Your task to perform on an android device: check data usage Image 0: 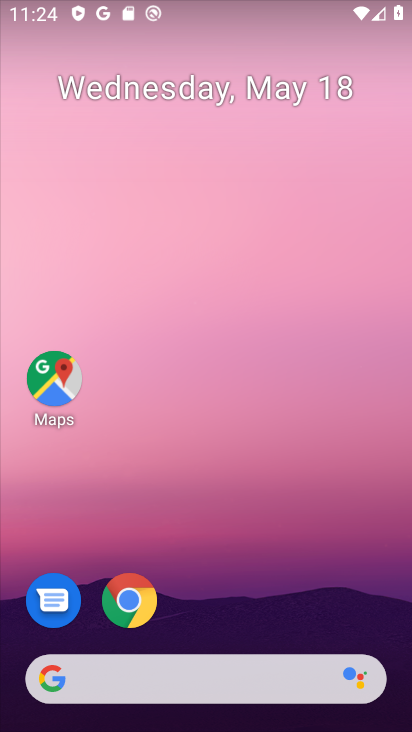
Step 0: drag from (189, 615) to (288, 30)
Your task to perform on an android device: check data usage Image 1: 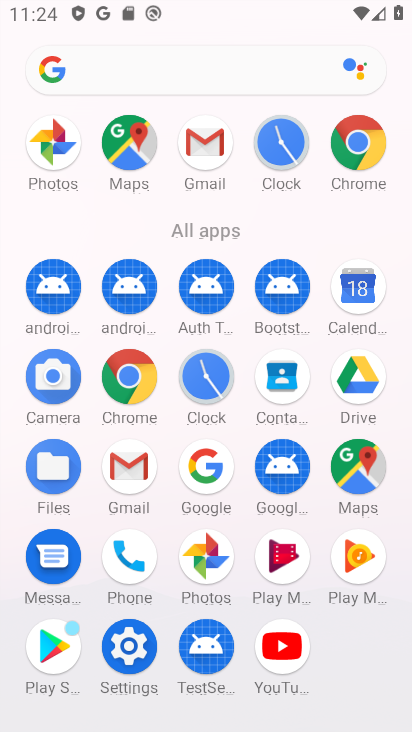
Step 1: click (142, 655)
Your task to perform on an android device: check data usage Image 2: 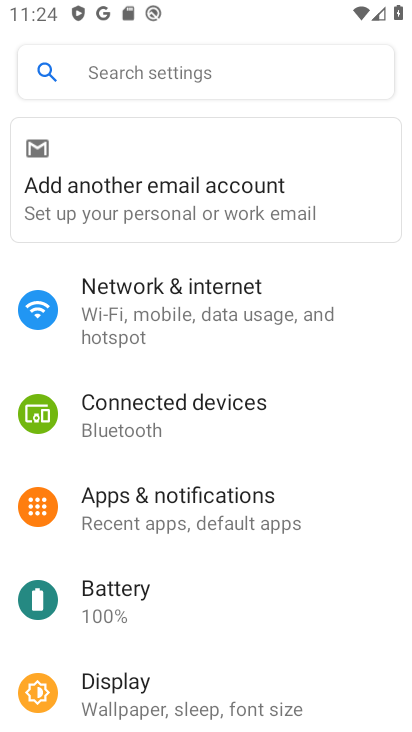
Step 2: drag from (147, 575) to (227, 235)
Your task to perform on an android device: check data usage Image 3: 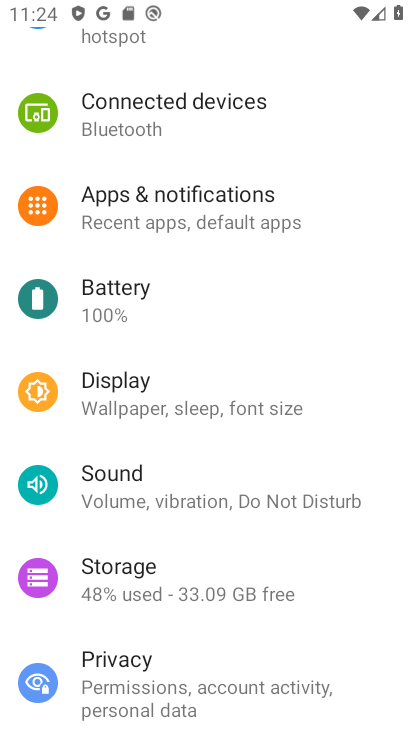
Step 3: drag from (188, 517) to (239, 205)
Your task to perform on an android device: check data usage Image 4: 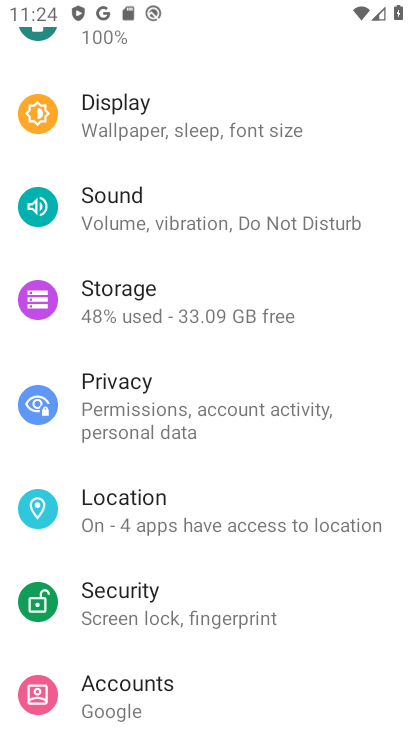
Step 4: drag from (159, 216) to (137, 666)
Your task to perform on an android device: check data usage Image 5: 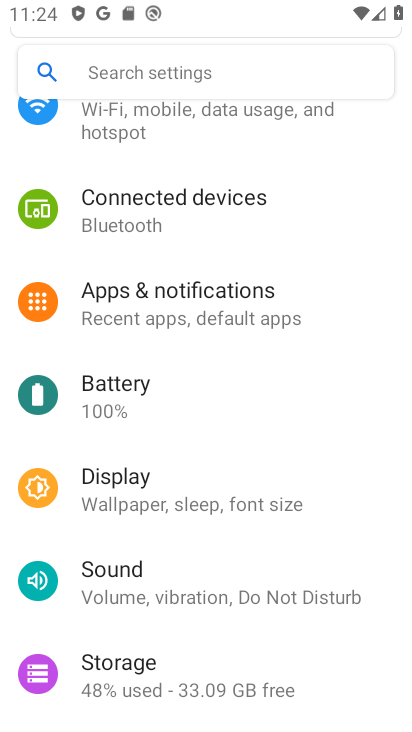
Step 5: drag from (185, 315) to (185, 705)
Your task to perform on an android device: check data usage Image 6: 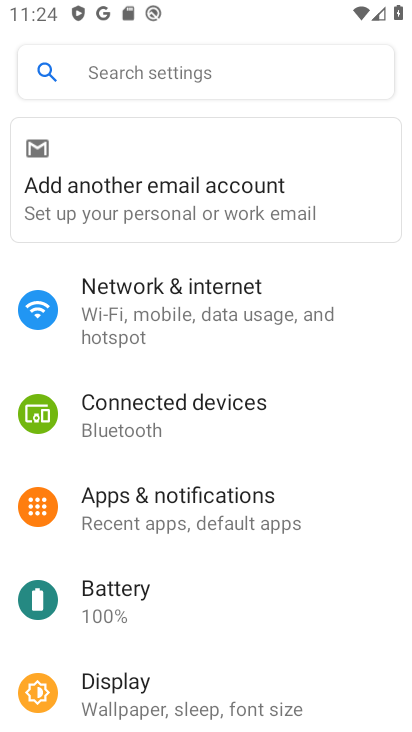
Step 6: click (174, 331)
Your task to perform on an android device: check data usage Image 7: 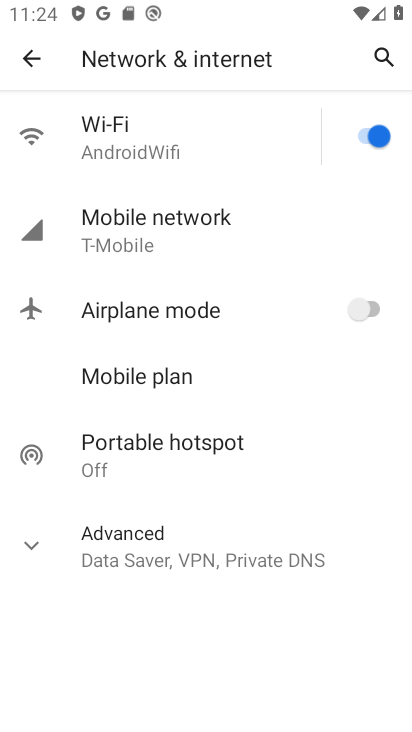
Step 7: click (152, 244)
Your task to perform on an android device: check data usage Image 8: 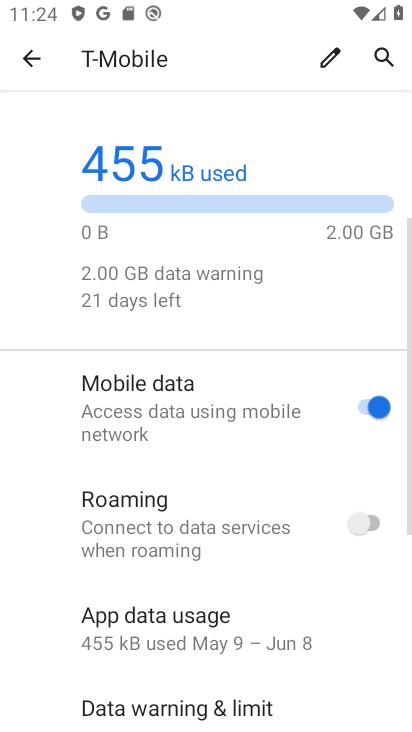
Step 8: drag from (243, 574) to (277, 315)
Your task to perform on an android device: check data usage Image 9: 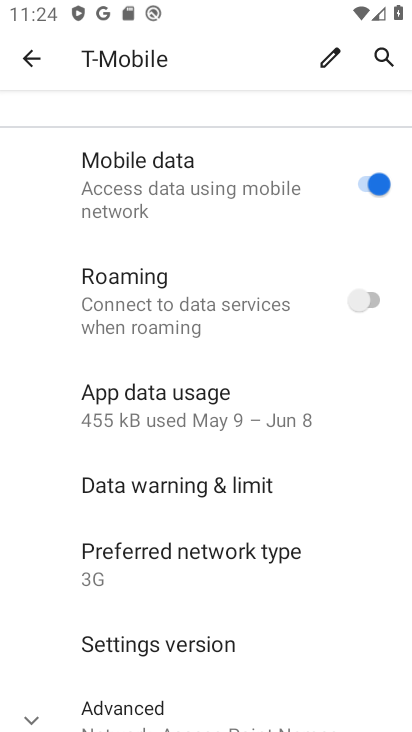
Step 9: click (222, 422)
Your task to perform on an android device: check data usage Image 10: 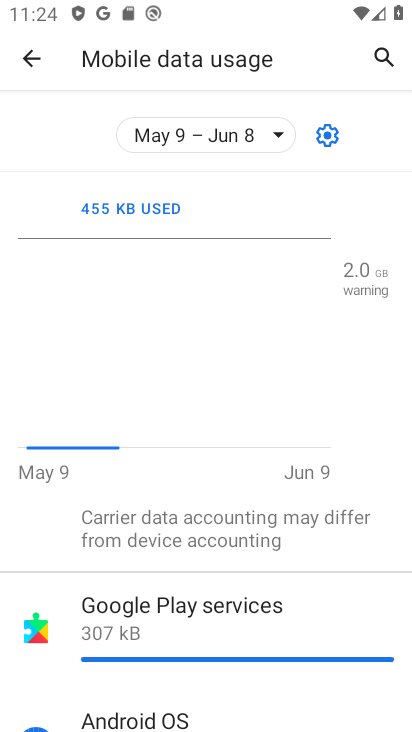
Step 10: task complete